Your task to perform on an android device: change the upload size in google photos Image 0: 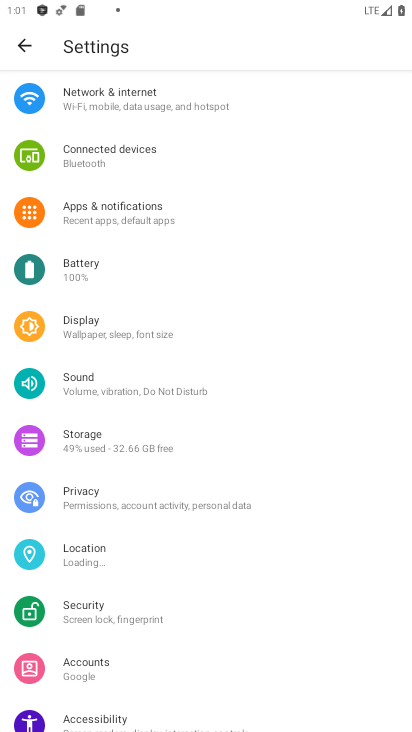
Step 0: press home button
Your task to perform on an android device: change the upload size in google photos Image 1: 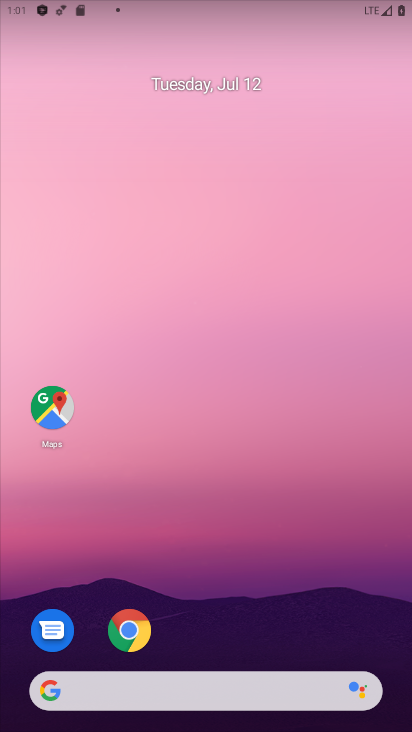
Step 1: drag from (234, 554) to (201, 46)
Your task to perform on an android device: change the upload size in google photos Image 2: 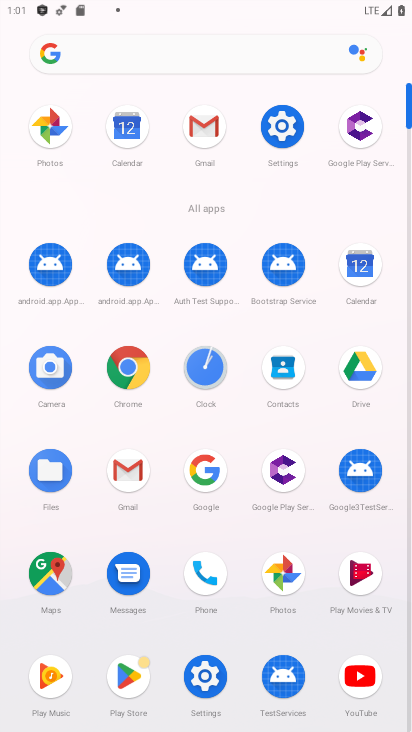
Step 2: click (277, 569)
Your task to perform on an android device: change the upload size in google photos Image 3: 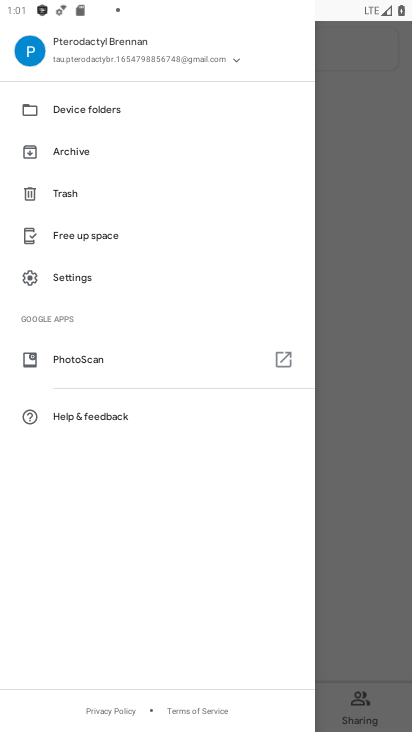
Step 3: click (80, 276)
Your task to perform on an android device: change the upload size in google photos Image 4: 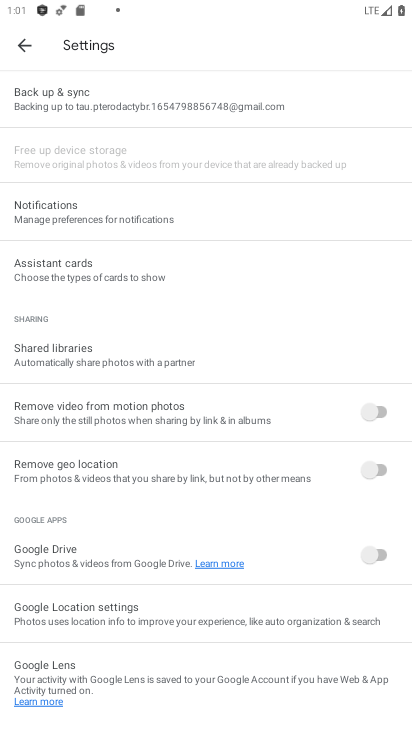
Step 4: drag from (123, 356) to (127, 211)
Your task to perform on an android device: change the upload size in google photos Image 5: 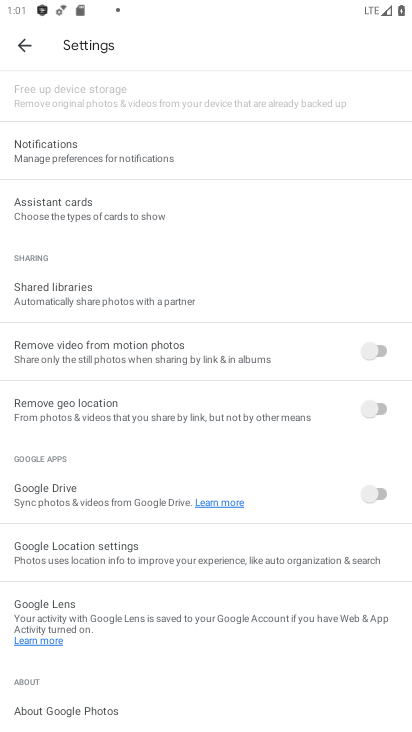
Step 5: drag from (94, 114) to (80, 321)
Your task to perform on an android device: change the upload size in google photos Image 6: 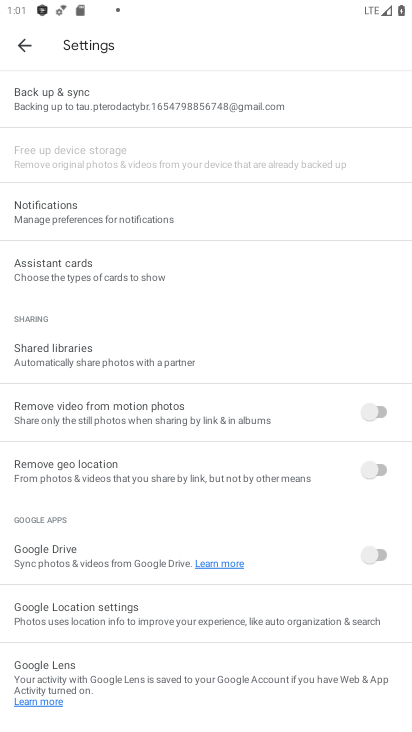
Step 6: click (43, 98)
Your task to perform on an android device: change the upload size in google photos Image 7: 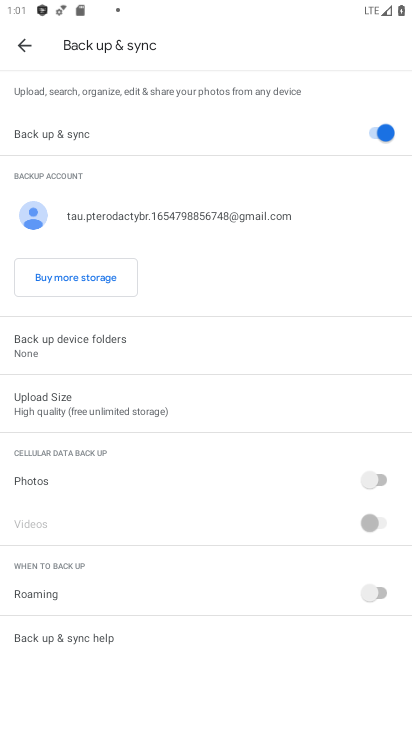
Step 7: click (33, 396)
Your task to perform on an android device: change the upload size in google photos Image 8: 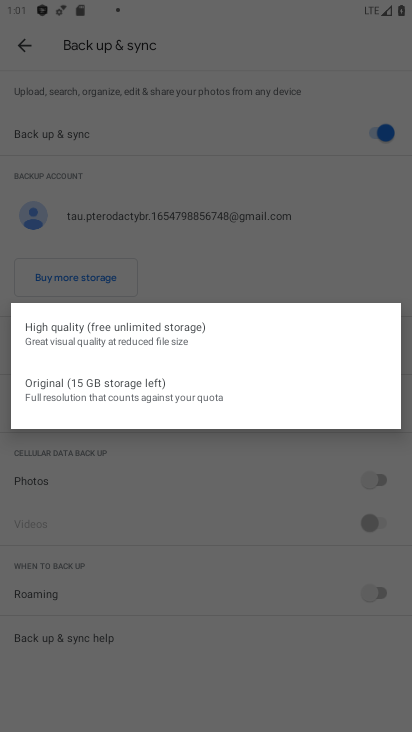
Step 8: task complete